Your task to perform on an android device: delete the emails in spam in the gmail app Image 0: 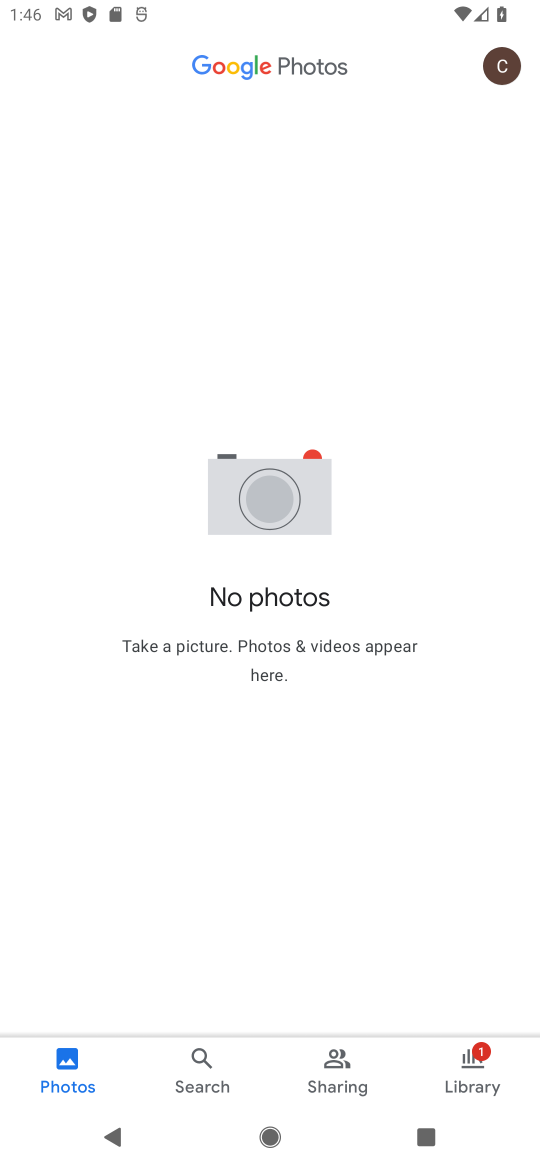
Step 0: press home button
Your task to perform on an android device: delete the emails in spam in the gmail app Image 1: 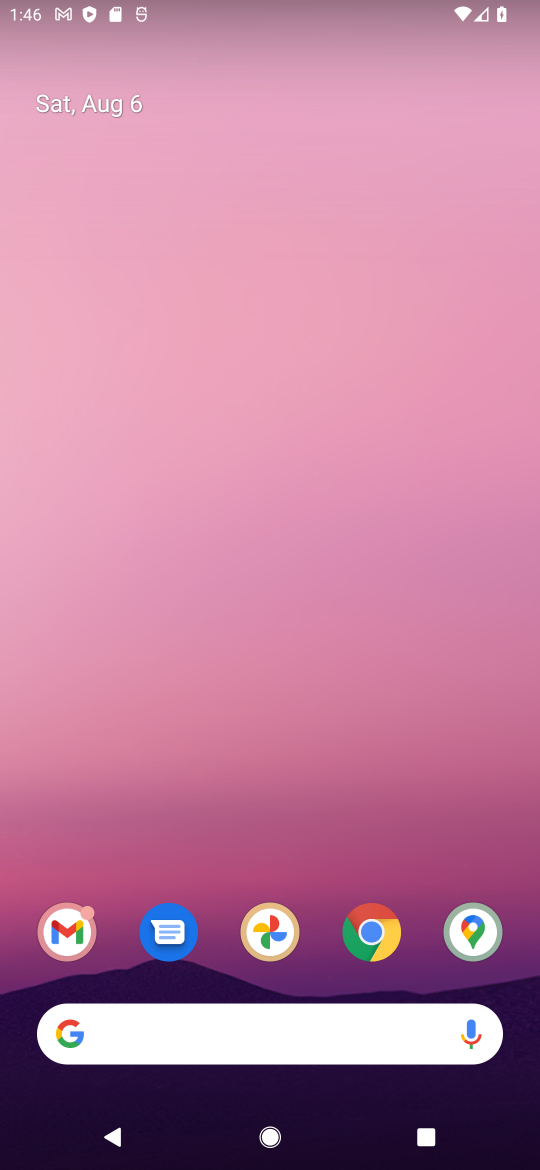
Step 1: drag from (250, 991) to (241, 293)
Your task to perform on an android device: delete the emails in spam in the gmail app Image 2: 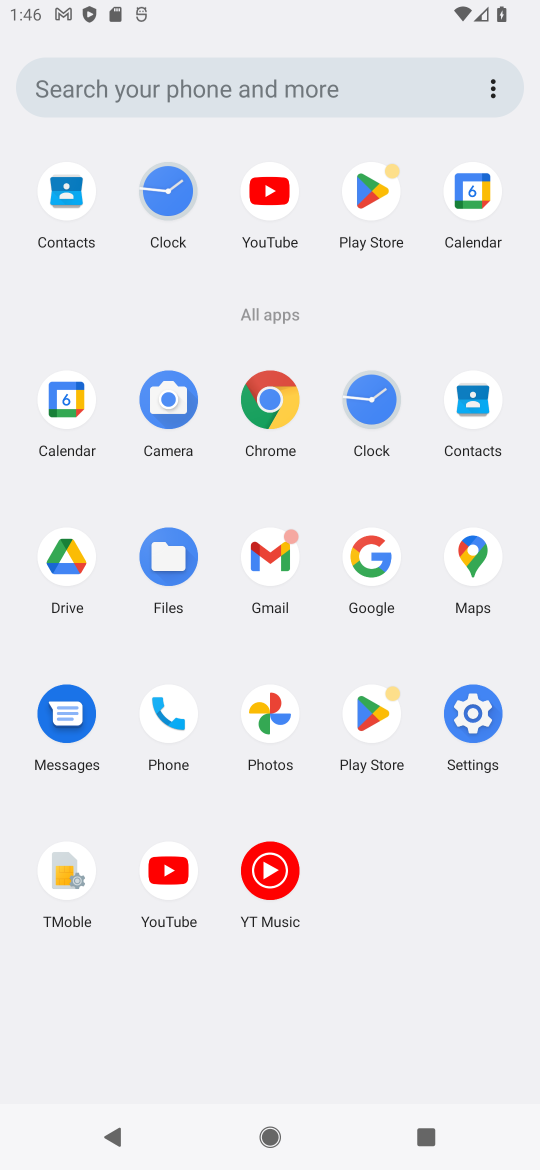
Step 2: click (270, 536)
Your task to perform on an android device: delete the emails in spam in the gmail app Image 3: 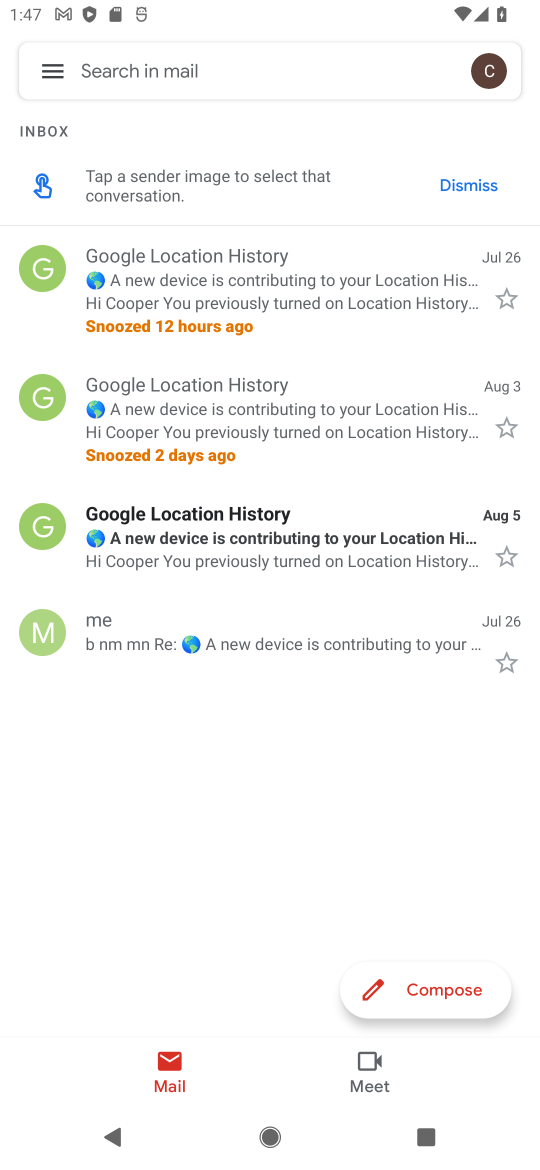
Step 3: click (53, 67)
Your task to perform on an android device: delete the emails in spam in the gmail app Image 4: 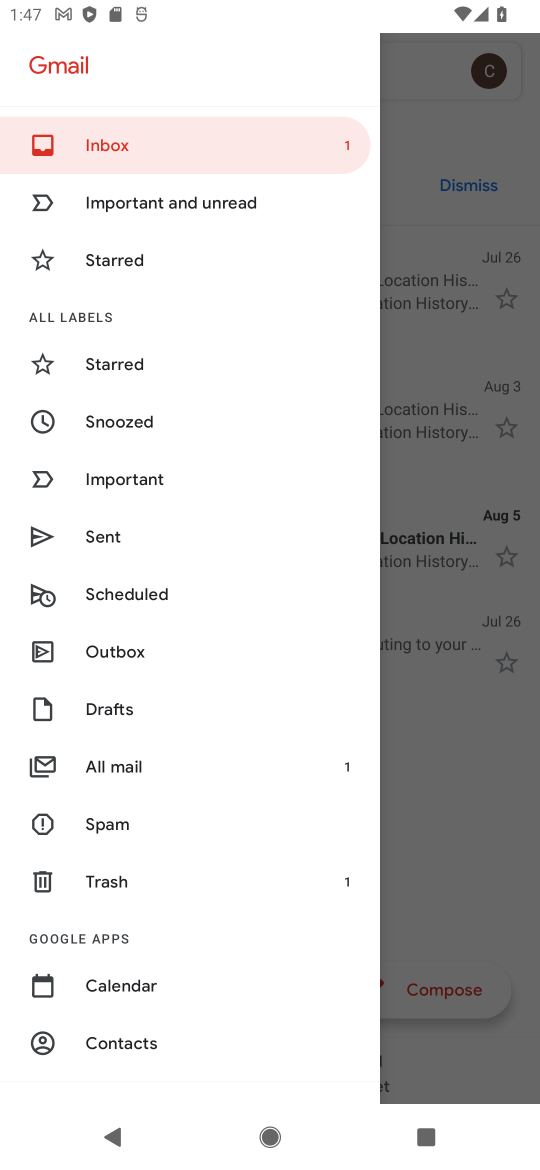
Step 4: click (122, 821)
Your task to perform on an android device: delete the emails in spam in the gmail app Image 5: 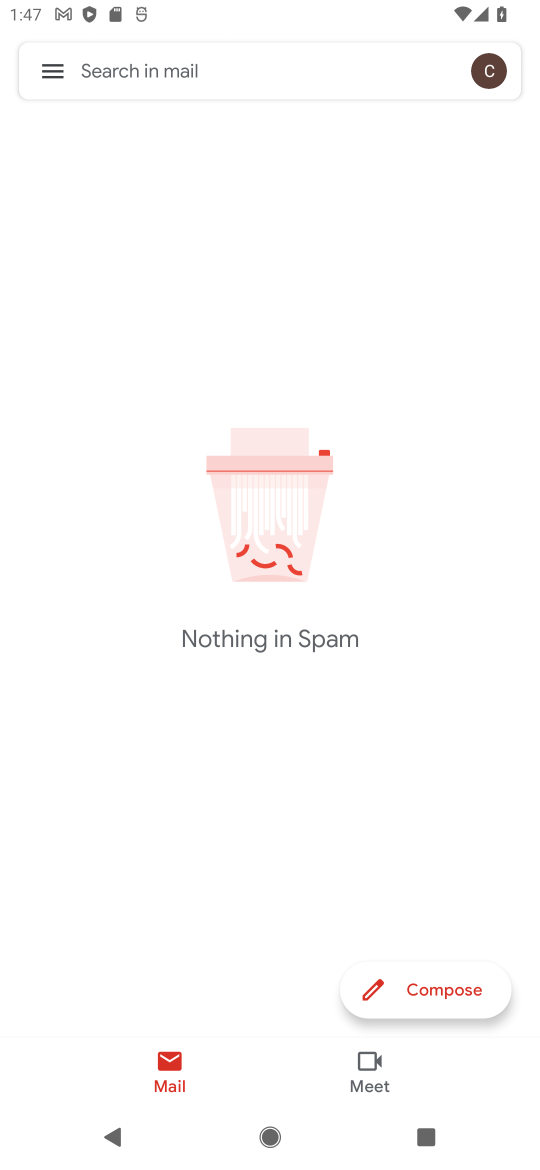
Step 5: task complete